Your task to perform on an android device: star an email in the gmail app Image 0: 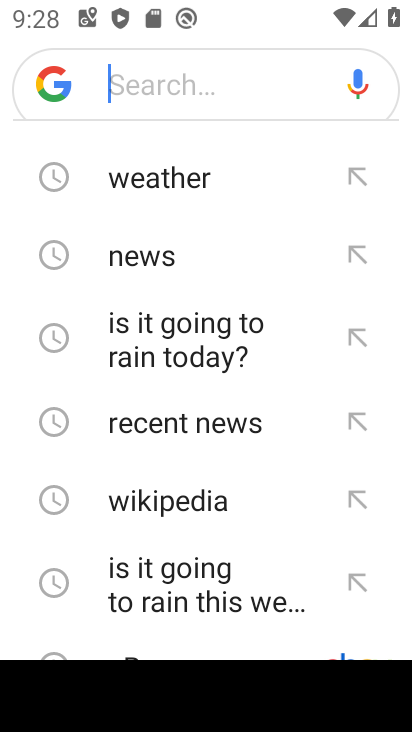
Step 0: press back button
Your task to perform on an android device: star an email in the gmail app Image 1: 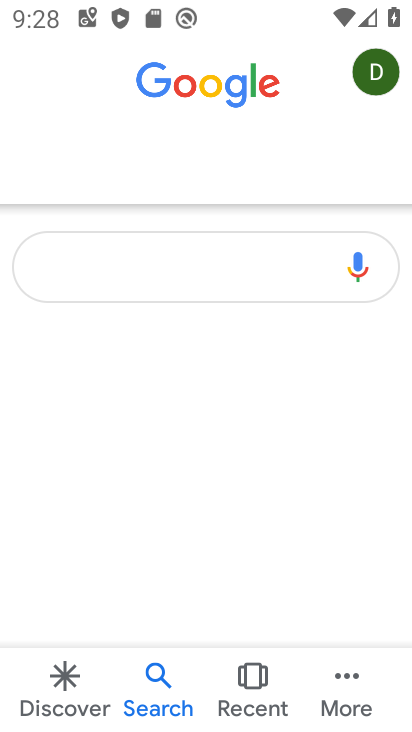
Step 1: press back button
Your task to perform on an android device: star an email in the gmail app Image 2: 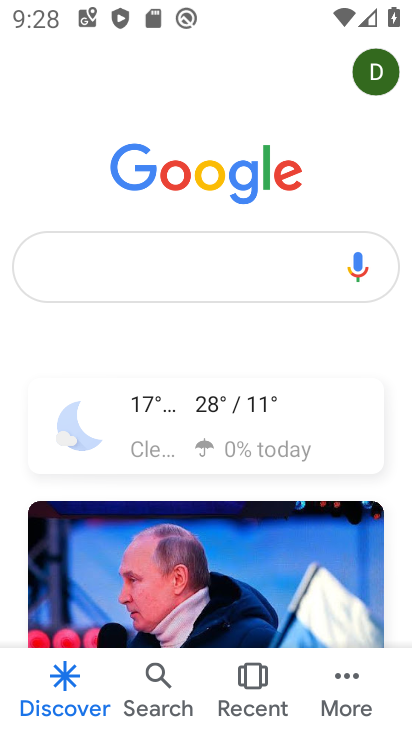
Step 2: press back button
Your task to perform on an android device: star an email in the gmail app Image 3: 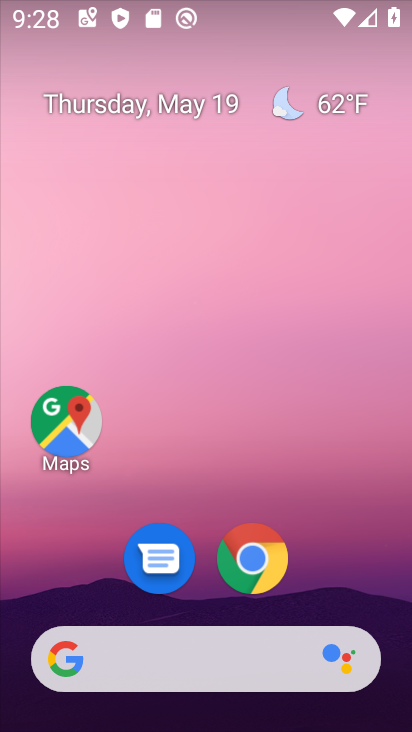
Step 3: drag from (337, 582) to (279, 131)
Your task to perform on an android device: star an email in the gmail app Image 4: 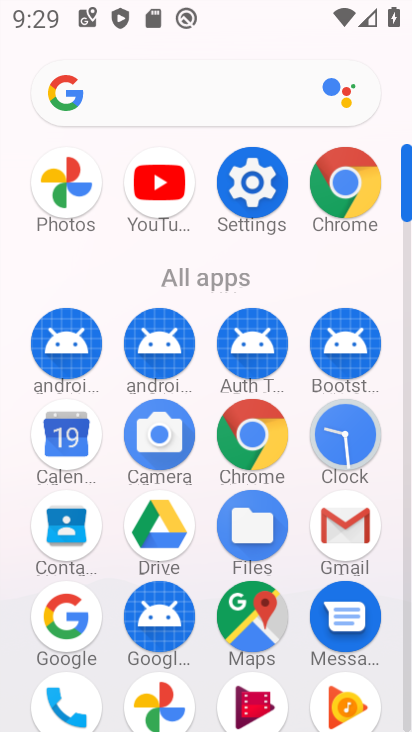
Step 4: click (344, 528)
Your task to perform on an android device: star an email in the gmail app Image 5: 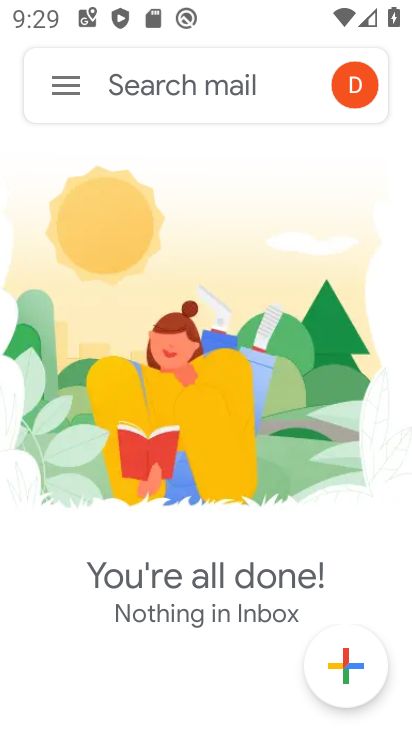
Step 5: click (64, 93)
Your task to perform on an android device: star an email in the gmail app Image 6: 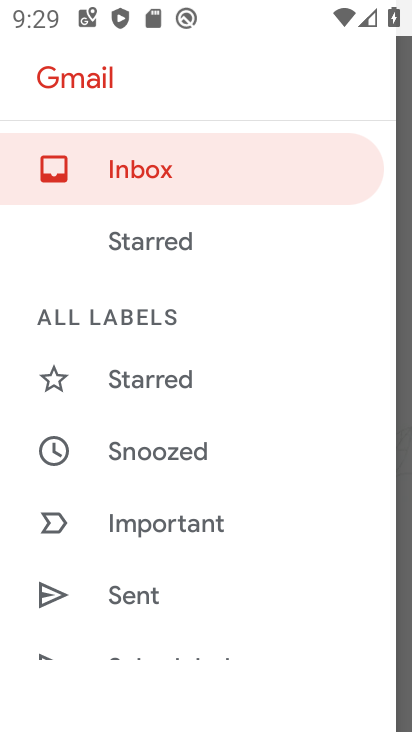
Step 6: click (126, 376)
Your task to perform on an android device: star an email in the gmail app Image 7: 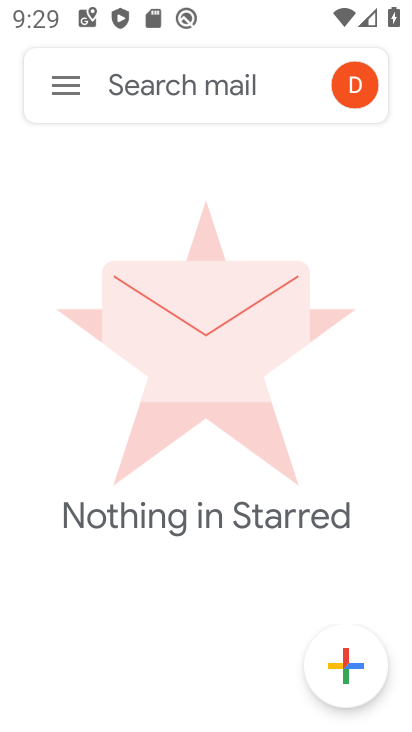
Step 7: click (64, 90)
Your task to perform on an android device: star an email in the gmail app Image 8: 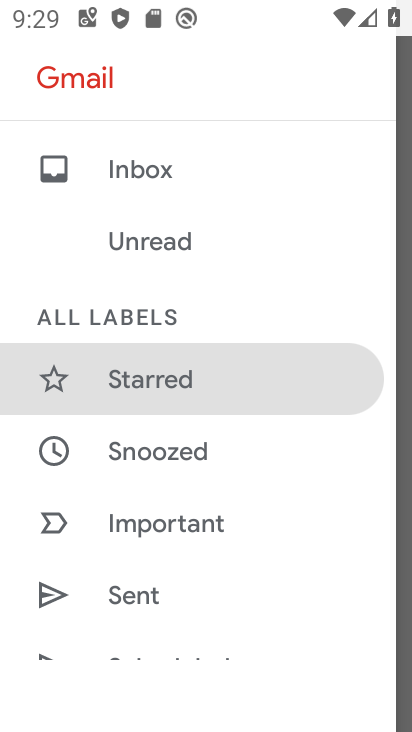
Step 8: task complete